Your task to perform on an android device: turn on wifi Image 0: 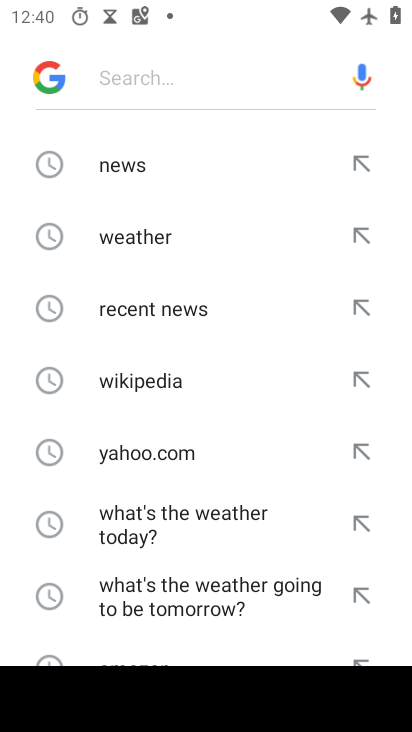
Step 0: press home button
Your task to perform on an android device: turn on wifi Image 1: 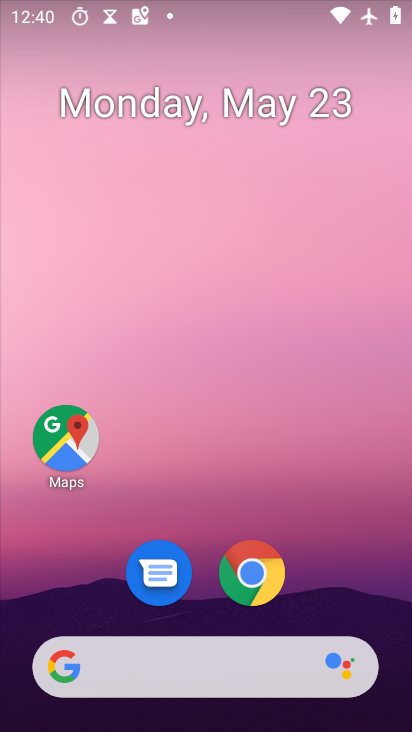
Step 1: drag from (186, 643) to (323, 76)
Your task to perform on an android device: turn on wifi Image 2: 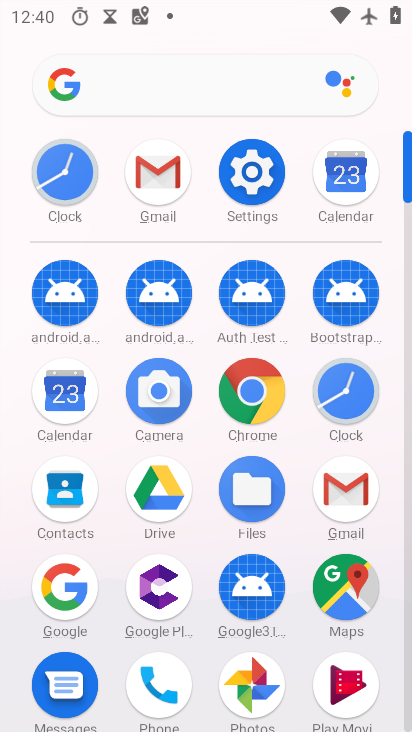
Step 2: click (250, 179)
Your task to perform on an android device: turn on wifi Image 3: 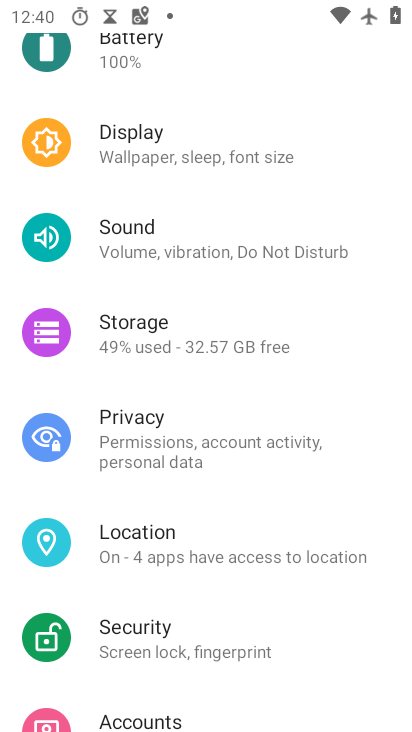
Step 3: drag from (335, 107) to (297, 588)
Your task to perform on an android device: turn on wifi Image 4: 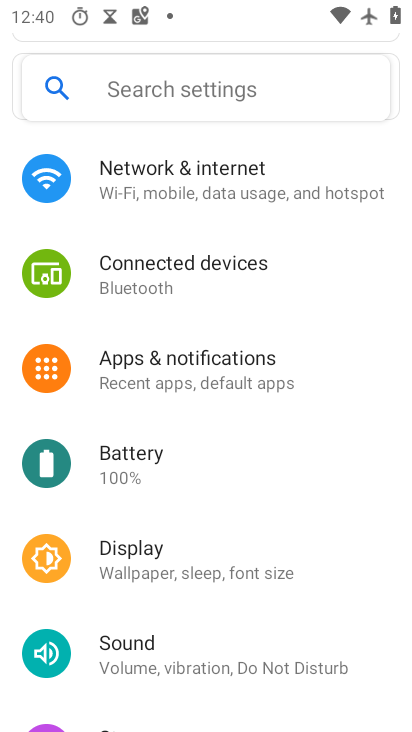
Step 4: click (229, 173)
Your task to perform on an android device: turn on wifi Image 5: 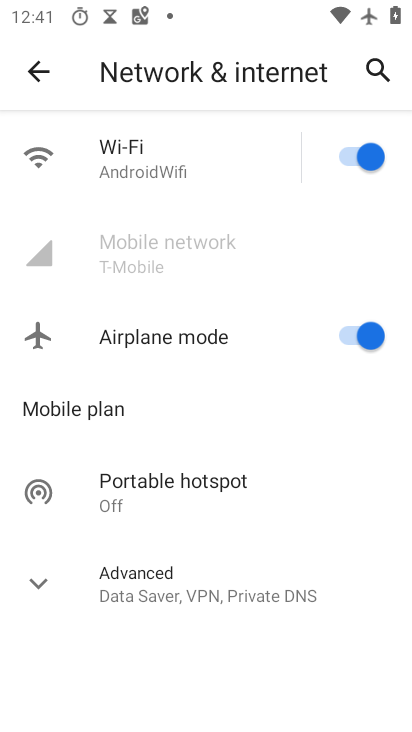
Step 5: task complete